Your task to perform on an android device: Open eBay Image 0: 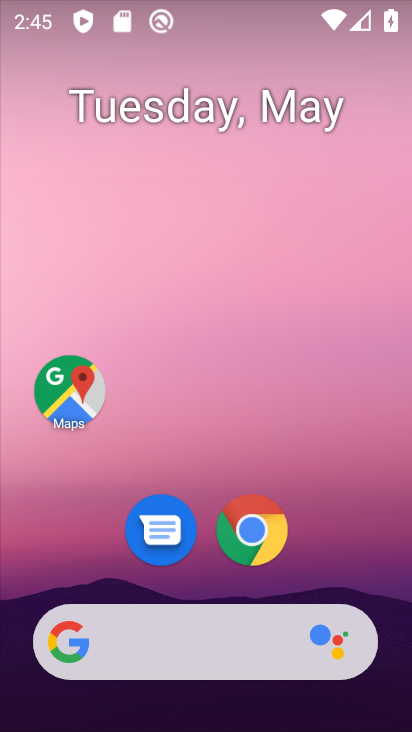
Step 0: press home button
Your task to perform on an android device: Open eBay Image 1: 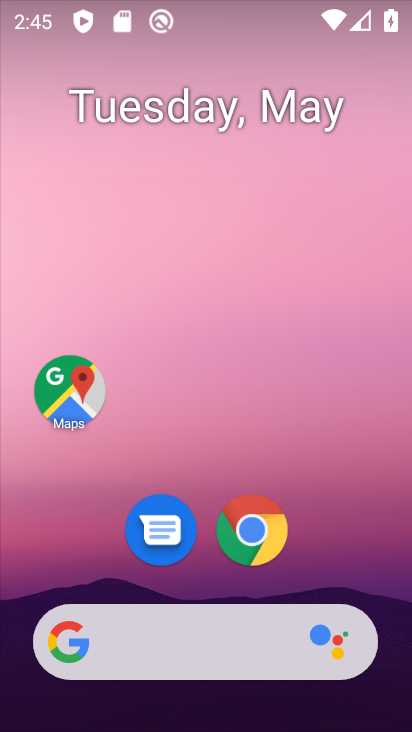
Step 1: click (254, 530)
Your task to perform on an android device: Open eBay Image 2: 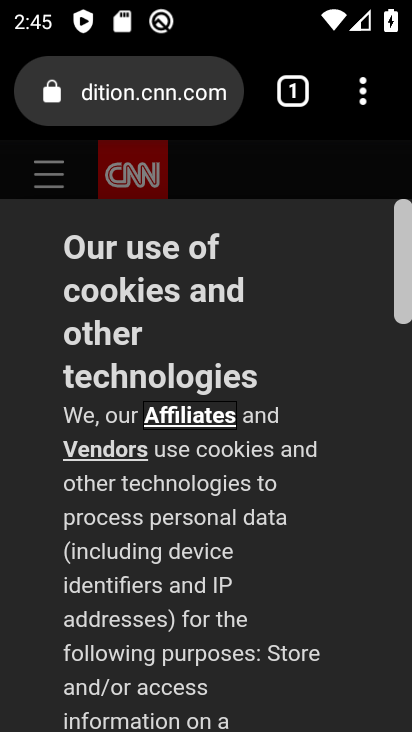
Step 2: click (292, 91)
Your task to perform on an android device: Open eBay Image 3: 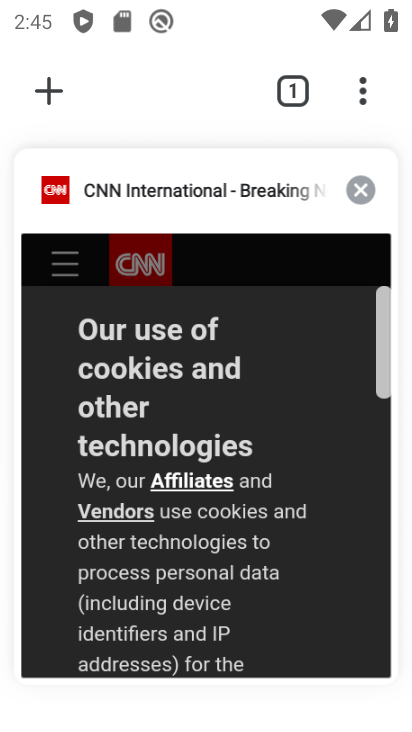
Step 3: click (361, 187)
Your task to perform on an android device: Open eBay Image 4: 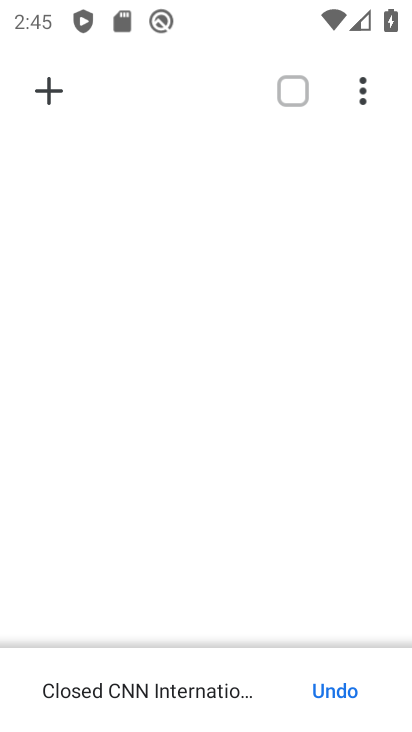
Step 4: click (44, 97)
Your task to perform on an android device: Open eBay Image 5: 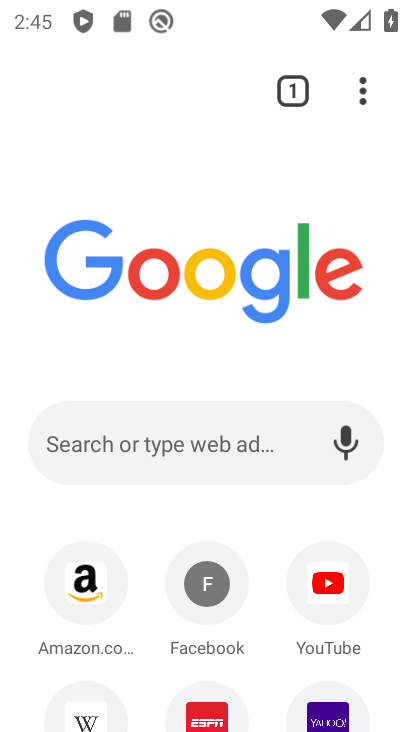
Step 5: drag from (16, 598) to (216, 124)
Your task to perform on an android device: Open eBay Image 6: 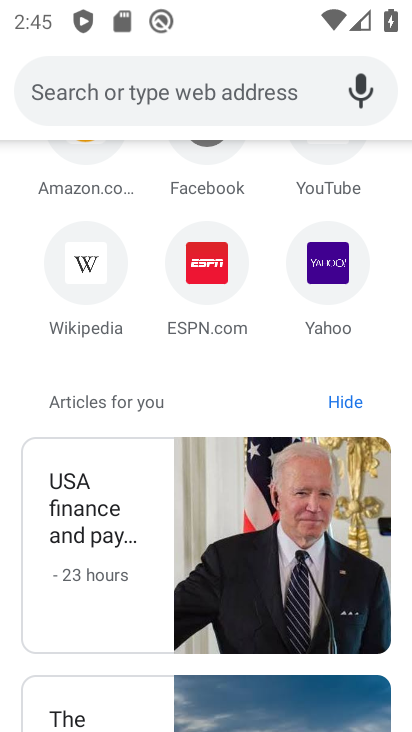
Step 6: click (193, 62)
Your task to perform on an android device: Open eBay Image 7: 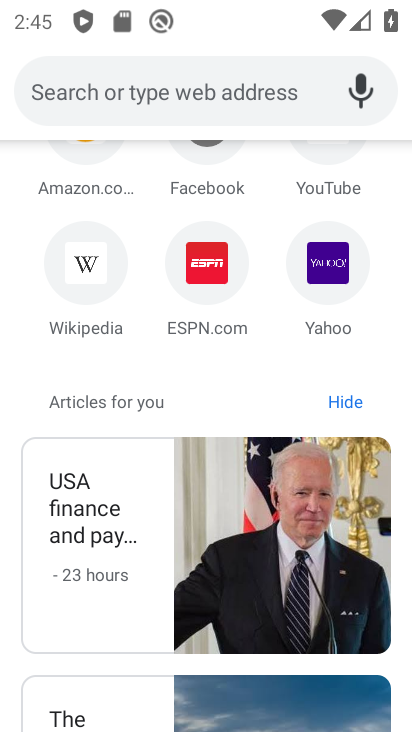
Step 7: click (198, 70)
Your task to perform on an android device: Open eBay Image 8: 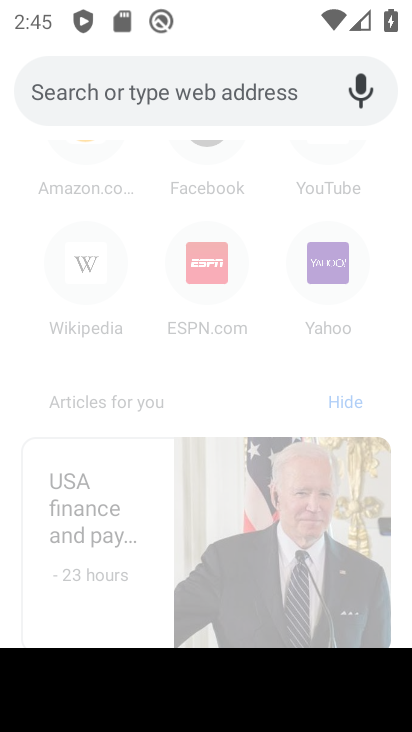
Step 8: type "eBay"
Your task to perform on an android device: Open eBay Image 9: 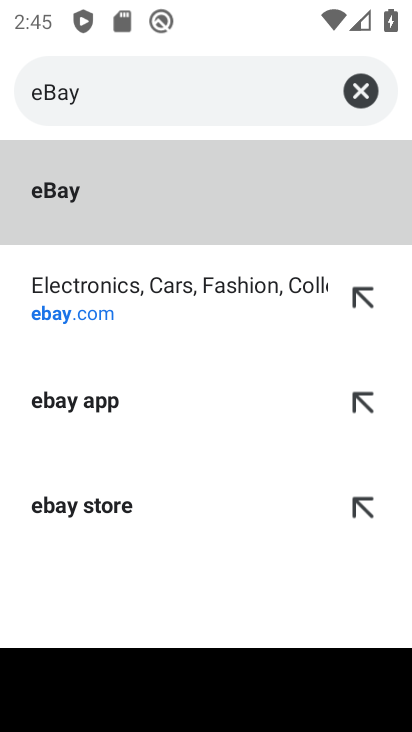
Step 9: click (84, 195)
Your task to perform on an android device: Open eBay Image 10: 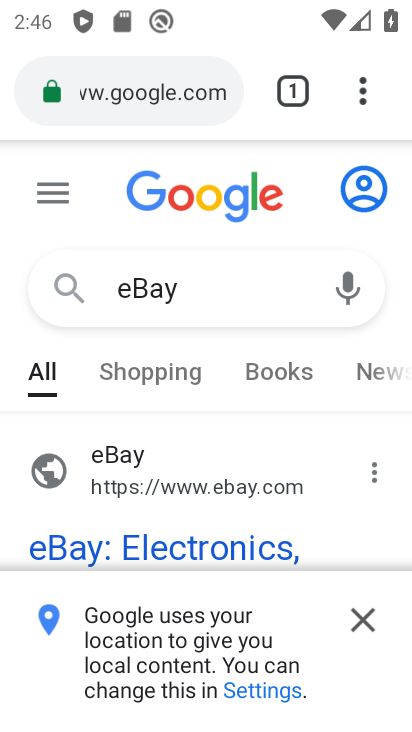
Step 10: click (139, 533)
Your task to perform on an android device: Open eBay Image 11: 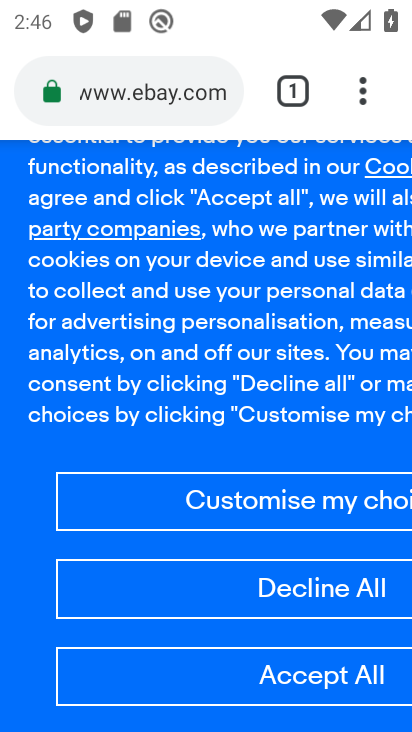
Step 11: task complete